Your task to perform on an android device: turn on priority inbox in the gmail app Image 0: 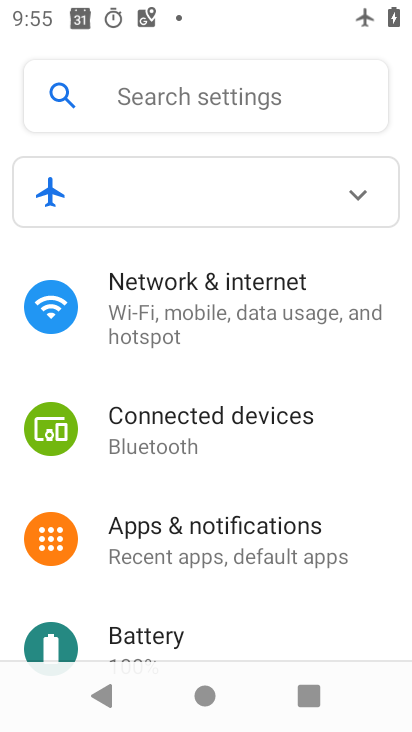
Step 0: drag from (245, 497) to (265, 263)
Your task to perform on an android device: turn on priority inbox in the gmail app Image 1: 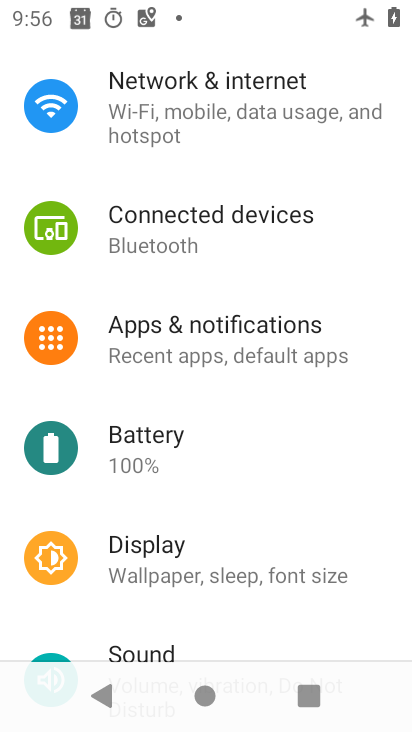
Step 1: press home button
Your task to perform on an android device: turn on priority inbox in the gmail app Image 2: 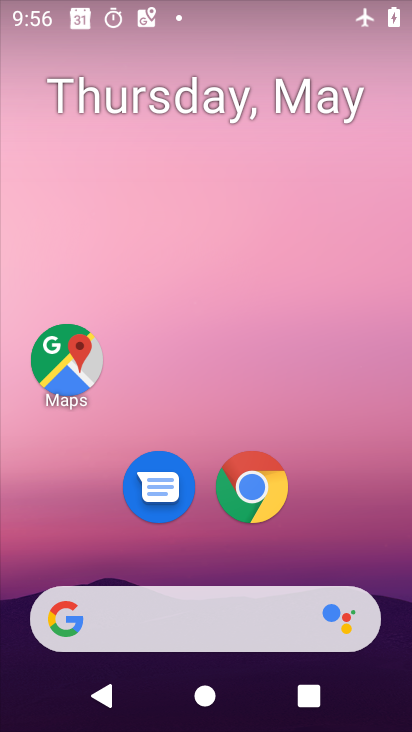
Step 2: drag from (139, 619) to (213, 313)
Your task to perform on an android device: turn on priority inbox in the gmail app Image 3: 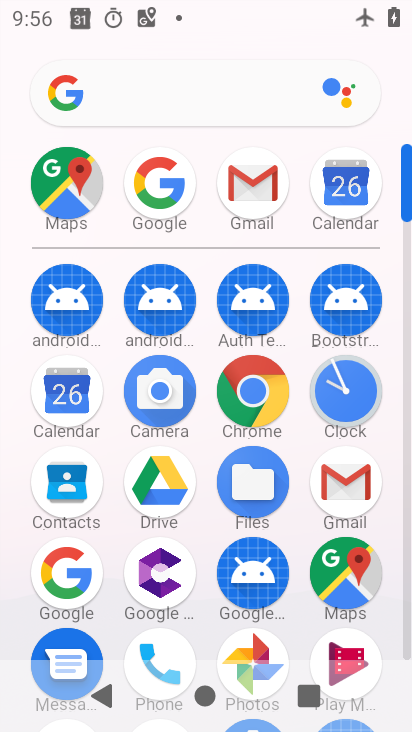
Step 3: click (355, 490)
Your task to perform on an android device: turn on priority inbox in the gmail app Image 4: 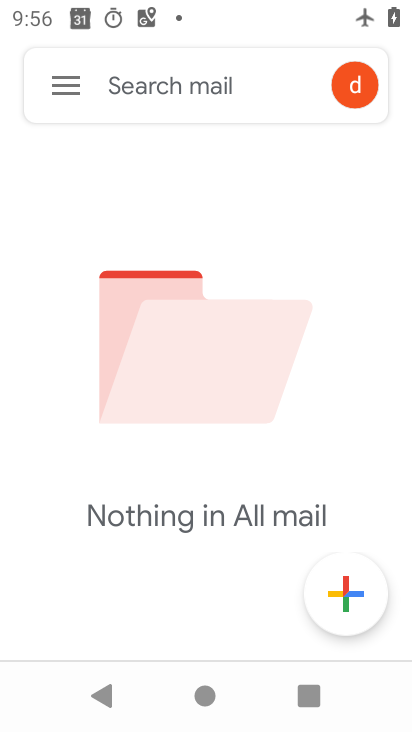
Step 4: click (61, 96)
Your task to perform on an android device: turn on priority inbox in the gmail app Image 5: 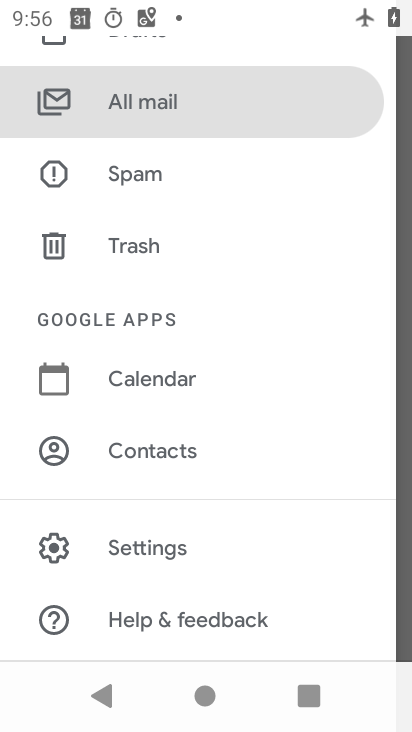
Step 5: click (171, 563)
Your task to perform on an android device: turn on priority inbox in the gmail app Image 6: 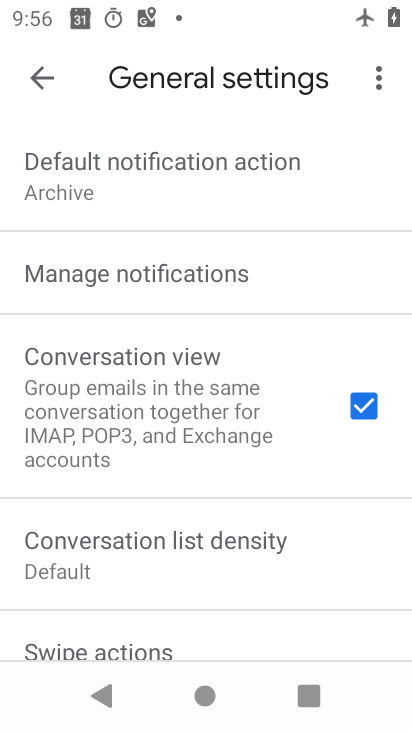
Step 6: drag from (169, 260) to (179, 582)
Your task to perform on an android device: turn on priority inbox in the gmail app Image 7: 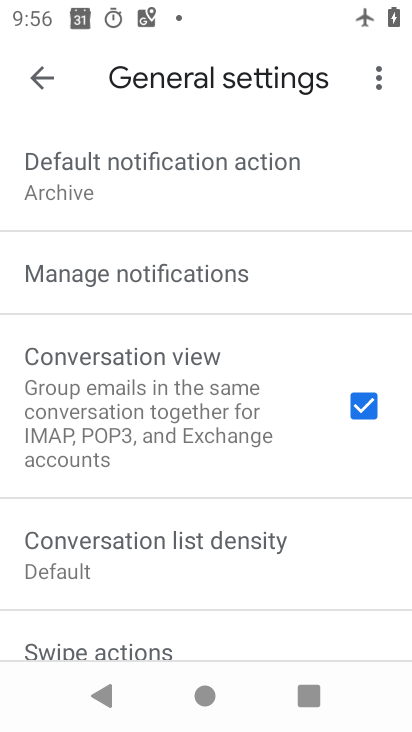
Step 7: click (47, 88)
Your task to perform on an android device: turn on priority inbox in the gmail app Image 8: 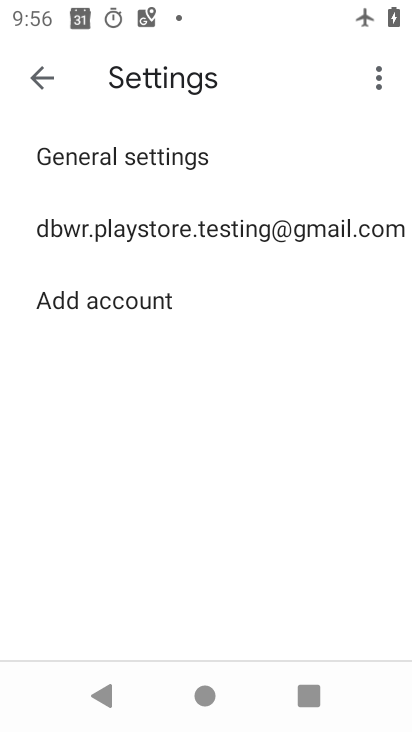
Step 8: click (200, 239)
Your task to perform on an android device: turn on priority inbox in the gmail app Image 9: 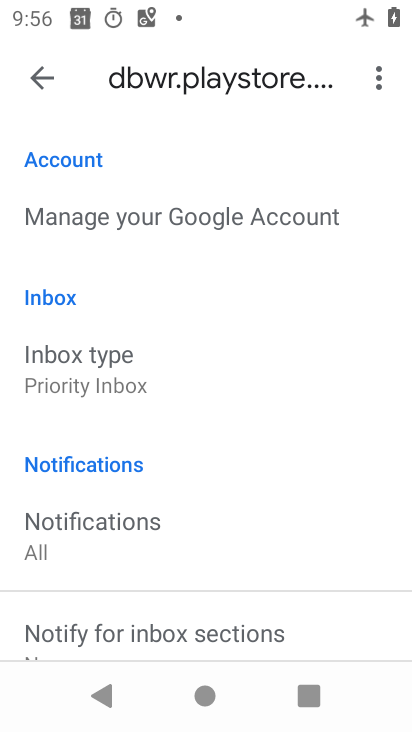
Step 9: click (146, 371)
Your task to perform on an android device: turn on priority inbox in the gmail app Image 10: 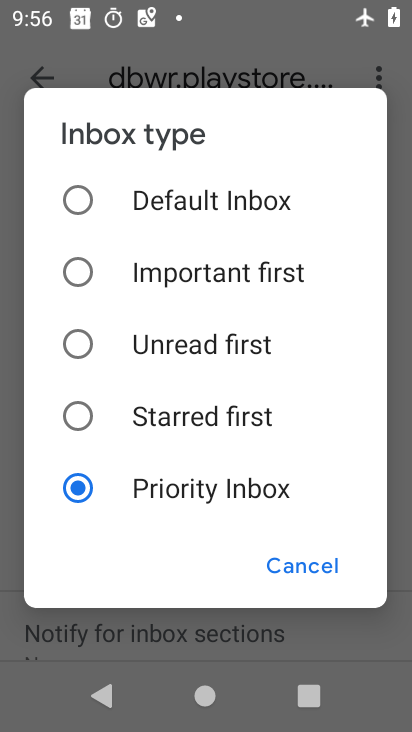
Step 10: task complete